Your task to perform on an android device: Go to Wikipedia Image 0: 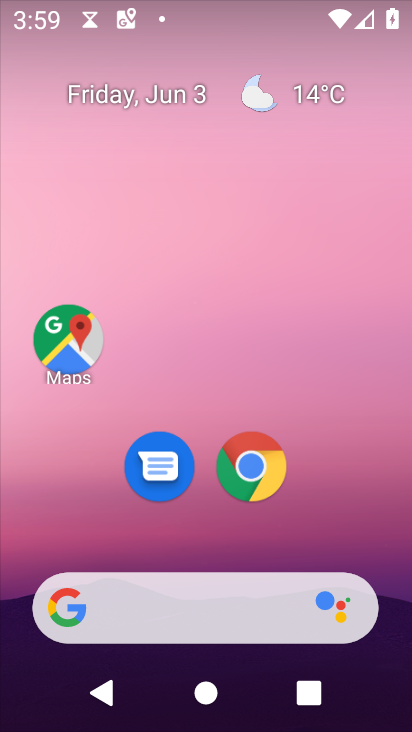
Step 0: drag from (342, 537) to (379, 3)
Your task to perform on an android device: Go to Wikipedia Image 1: 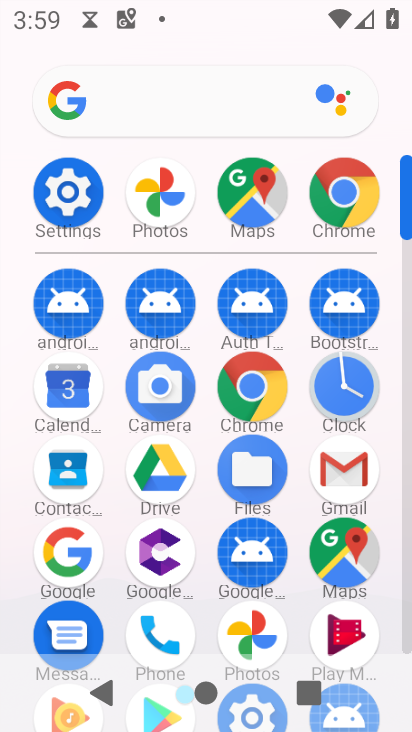
Step 1: click (62, 552)
Your task to perform on an android device: Go to Wikipedia Image 2: 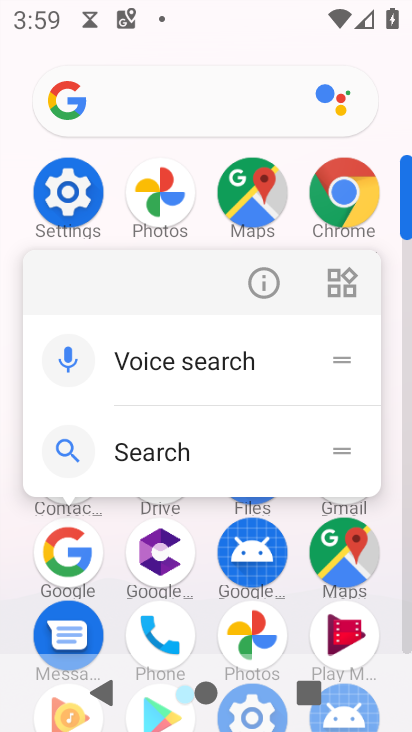
Step 2: click (64, 547)
Your task to perform on an android device: Go to Wikipedia Image 3: 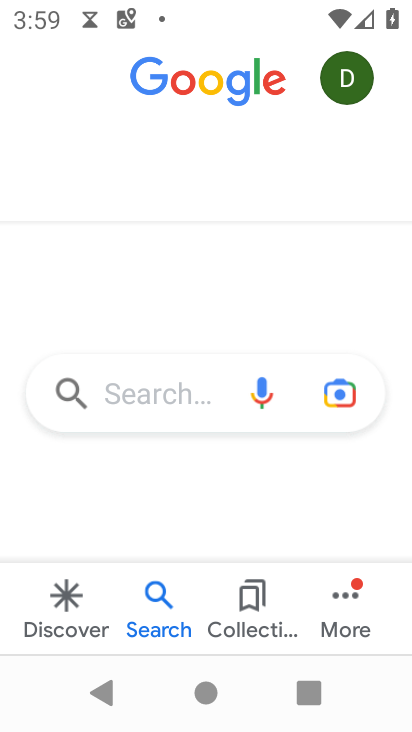
Step 3: click (113, 391)
Your task to perform on an android device: Go to Wikipedia Image 4: 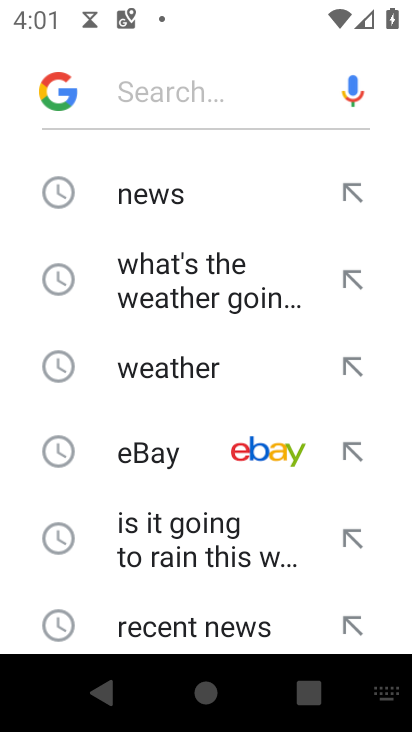
Step 4: click (130, 78)
Your task to perform on an android device: Go to Wikipedia Image 5: 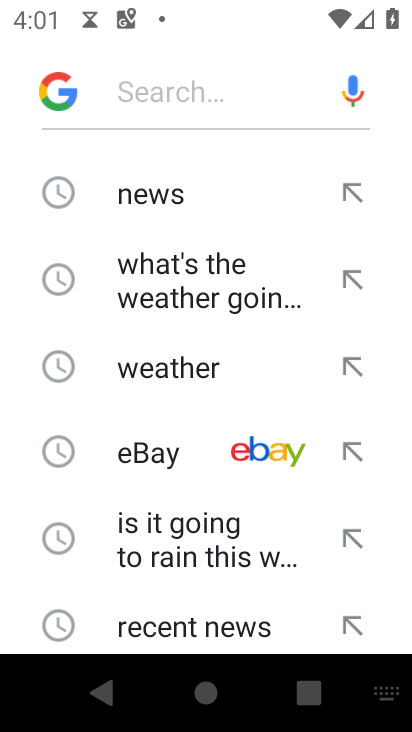
Step 5: click (187, 106)
Your task to perform on an android device: Go to Wikipedia Image 6: 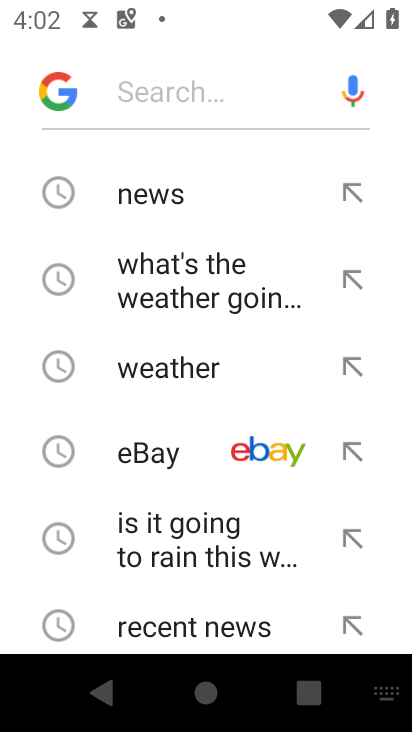
Step 6: type "wikipedia"
Your task to perform on an android device: Go to Wikipedia Image 7: 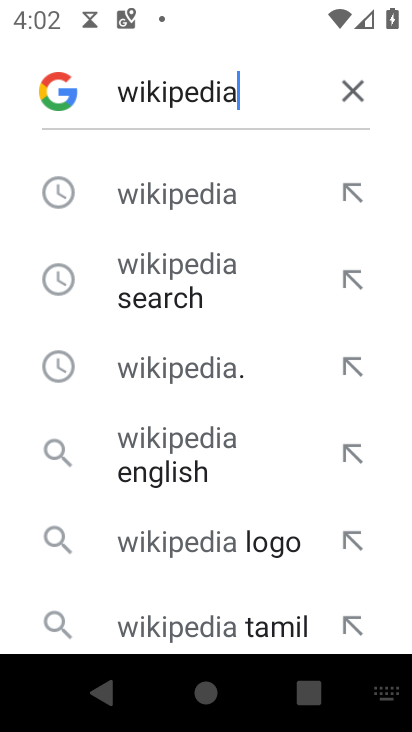
Step 7: click (233, 207)
Your task to perform on an android device: Go to Wikipedia Image 8: 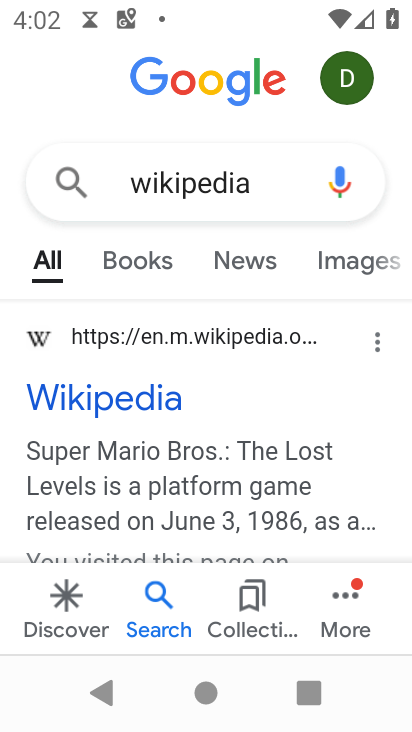
Step 8: click (114, 392)
Your task to perform on an android device: Go to Wikipedia Image 9: 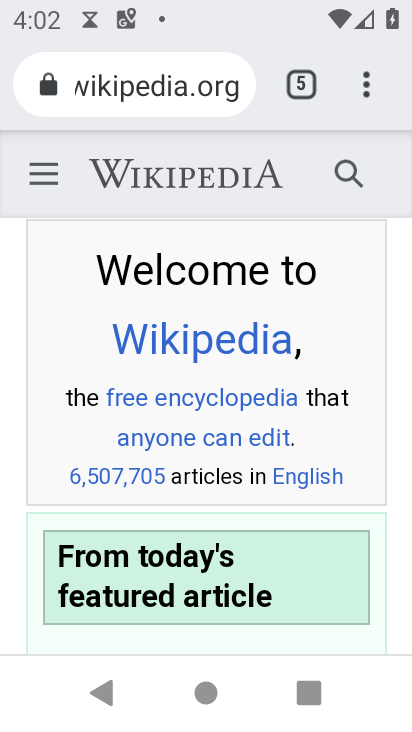
Step 9: task complete